Your task to perform on an android device: Check the news Image 0: 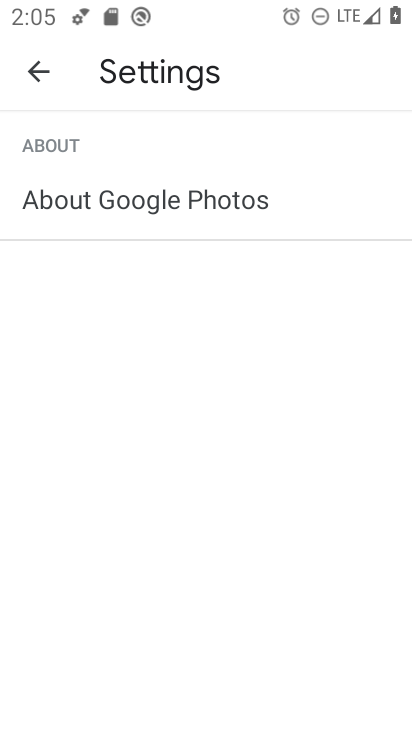
Step 0: press home button
Your task to perform on an android device: Check the news Image 1: 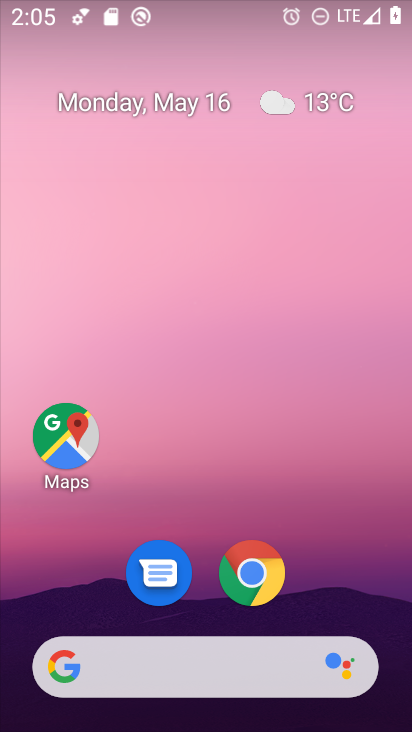
Step 1: task complete